Your task to perform on an android device: Turn on the flashlight Image 0: 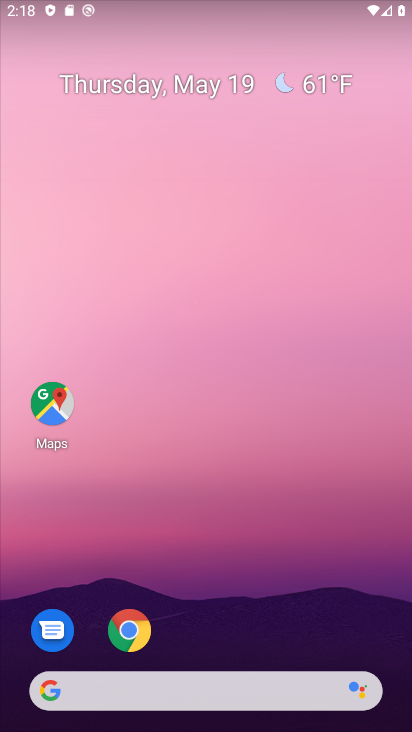
Step 0: drag from (227, 12) to (231, 564)
Your task to perform on an android device: Turn on the flashlight Image 1: 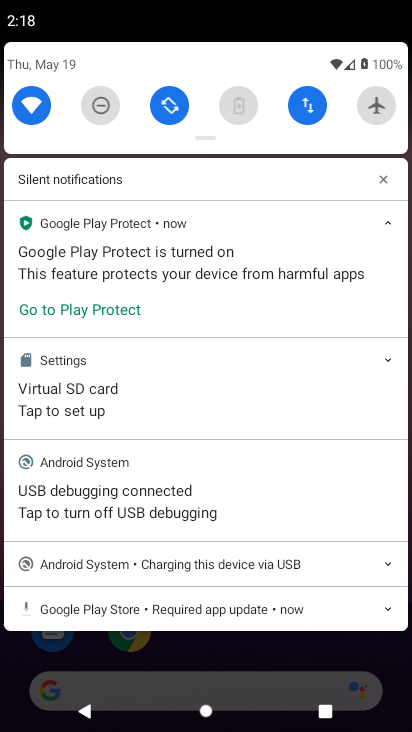
Step 1: task complete